Your task to perform on an android device: Go to CNN.com Image 0: 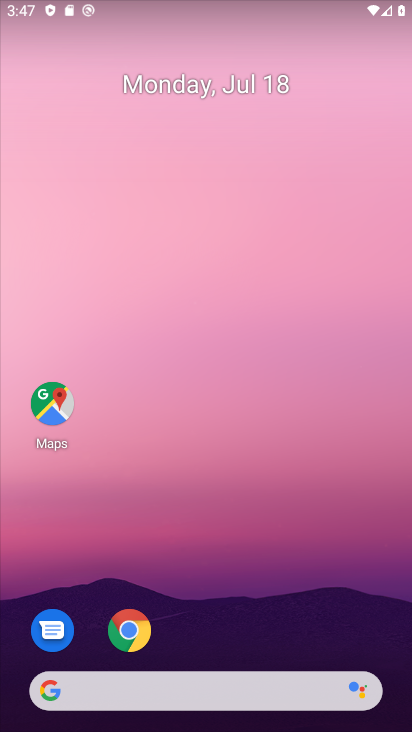
Step 0: drag from (273, 597) to (244, 72)
Your task to perform on an android device: Go to CNN.com Image 1: 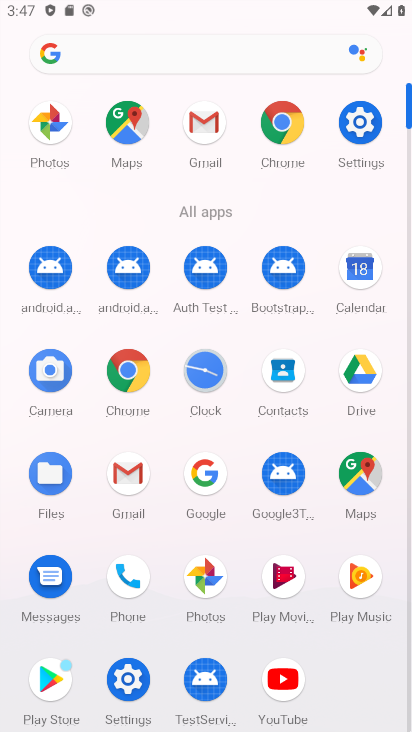
Step 1: click (127, 366)
Your task to perform on an android device: Go to CNN.com Image 2: 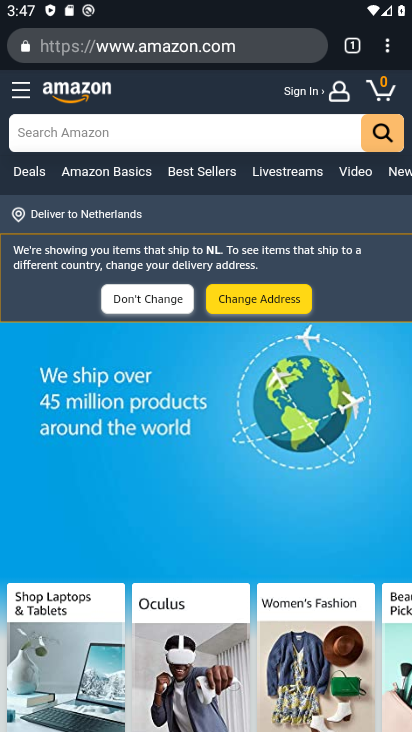
Step 2: click (265, 38)
Your task to perform on an android device: Go to CNN.com Image 3: 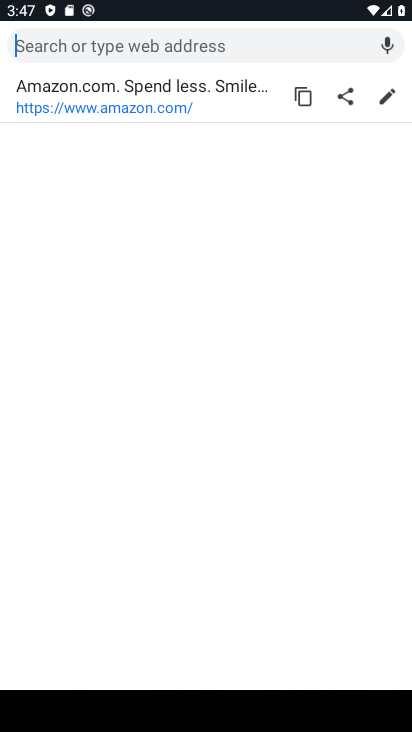
Step 3: type "cnn.com"
Your task to perform on an android device: Go to CNN.com Image 4: 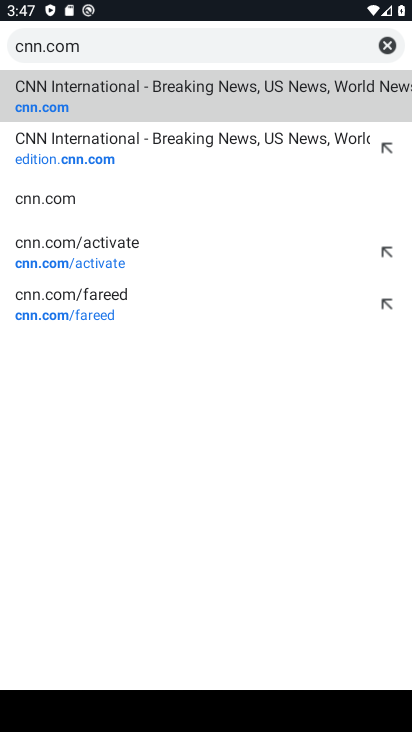
Step 4: click (41, 107)
Your task to perform on an android device: Go to CNN.com Image 5: 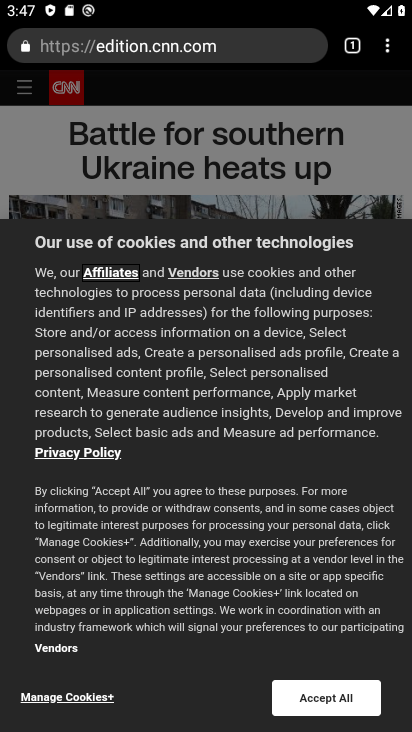
Step 5: task complete